Your task to perform on an android device: open app "WhatsApp Messenger" Image 0: 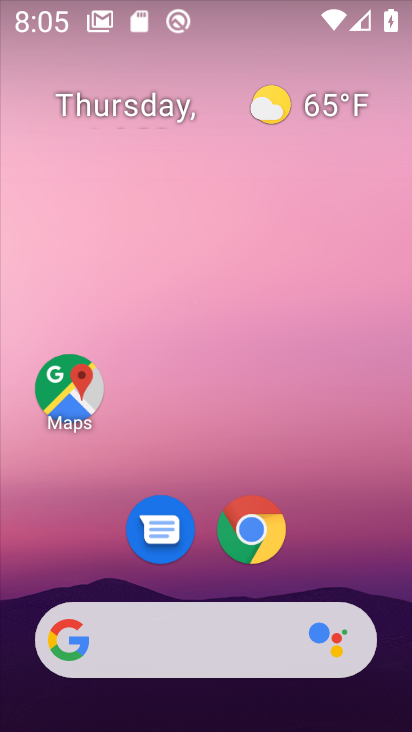
Step 0: drag from (200, 724) to (199, 171)
Your task to perform on an android device: open app "WhatsApp Messenger" Image 1: 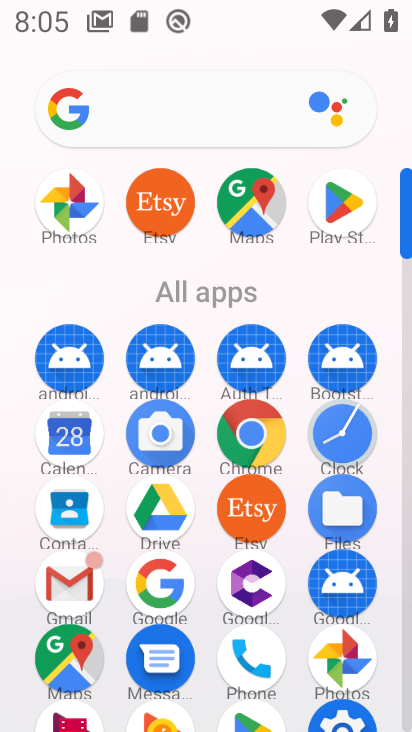
Step 1: drag from (304, 615) to (303, 225)
Your task to perform on an android device: open app "WhatsApp Messenger" Image 2: 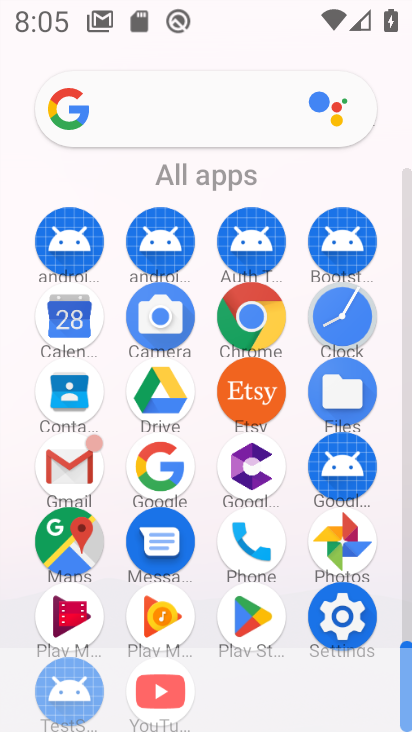
Step 2: click (255, 617)
Your task to perform on an android device: open app "WhatsApp Messenger" Image 3: 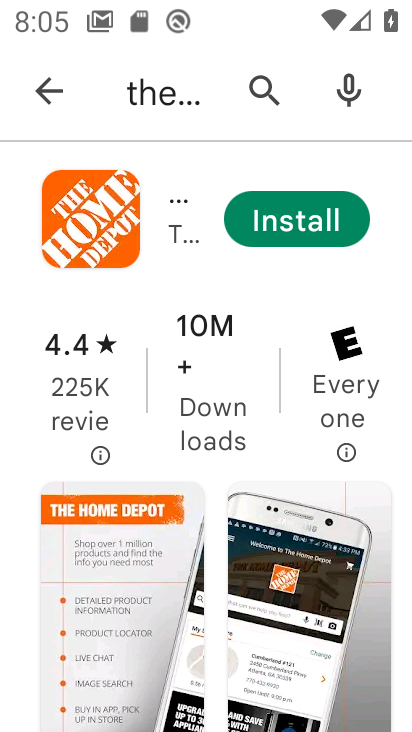
Step 3: click (258, 77)
Your task to perform on an android device: open app "WhatsApp Messenger" Image 4: 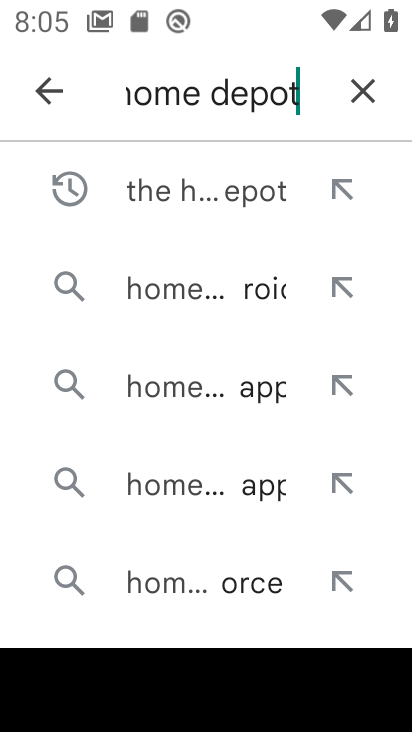
Step 4: click (354, 88)
Your task to perform on an android device: open app "WhatsApp Messenger" Image 5: 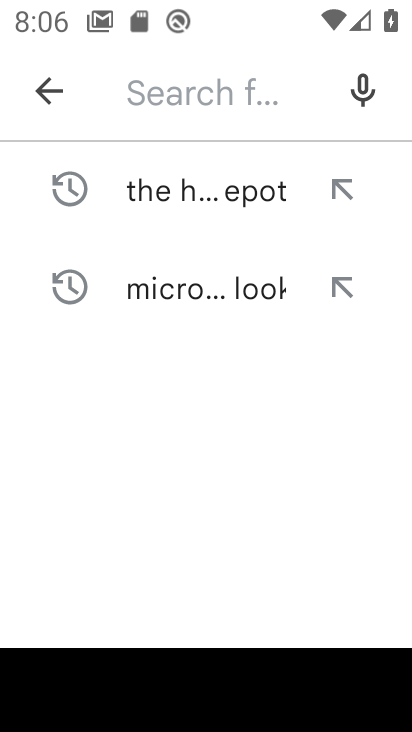
Step 5: type "WhatsApp Messenger"
Your task to perform on an android device: open app "WhatsApp Messenger" Image 6: 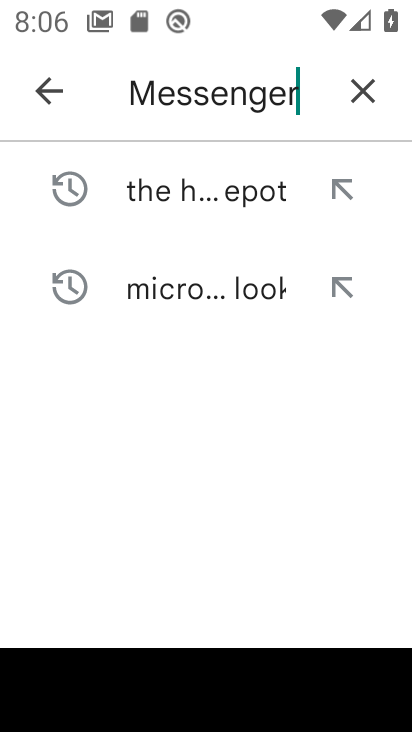
Step 6: type ""
Your task to perform on an android device: open app "WhatsApp Messenger" Image 7: 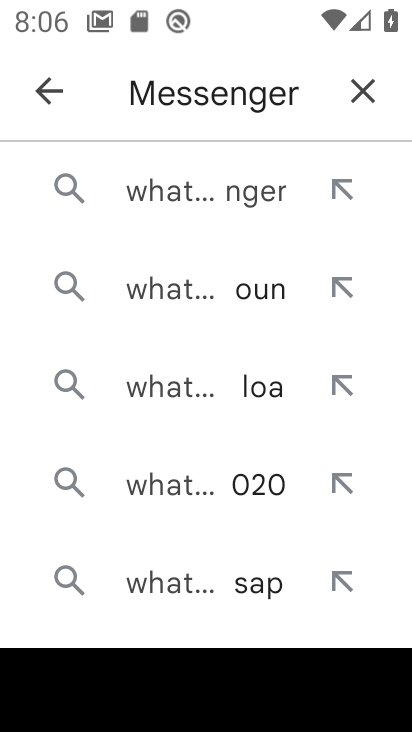
Step 7: click (182, 188)
Your task to perform on an android device: open app "WhatsApp Messenger" Image 8: 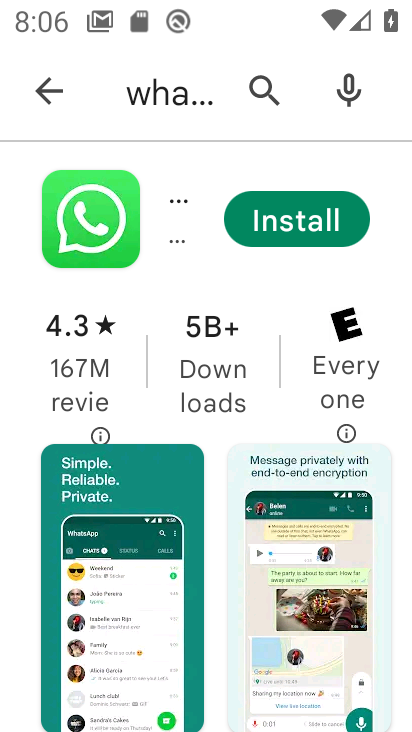
Step 8: task complete